Your task to perform on an android device: Go to wifi settings Image 0: 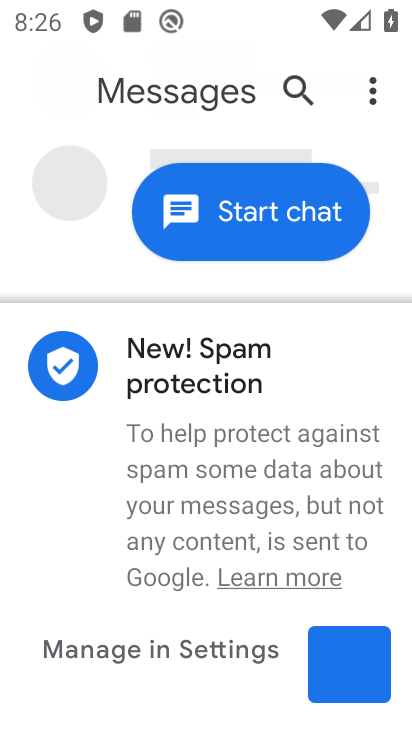
Step 0: press home button
Your task to perform on an android device: Go to wifi settings Image 1: 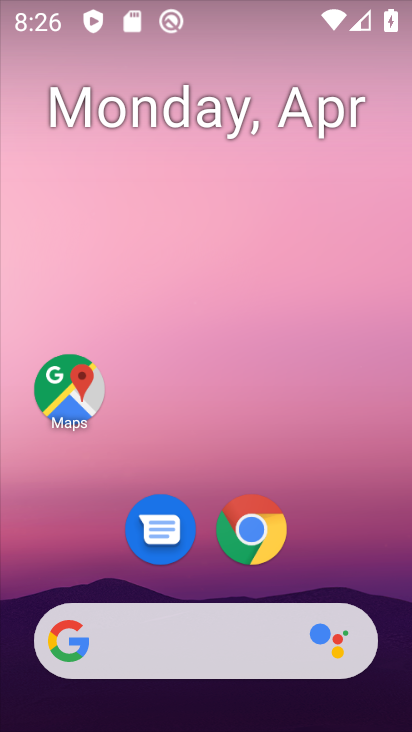
Step 1: drag from (329, 525) to (335, 140)
Your task to perform on an android device: Go to wifi settings Image 2: 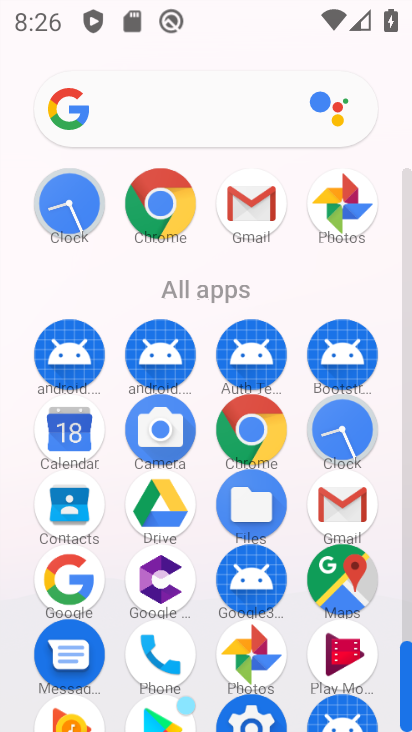
Step 2: drag from (296, 614) to (302, 303)
Your task to perform on an android device: Go to wifi settings Image 3: 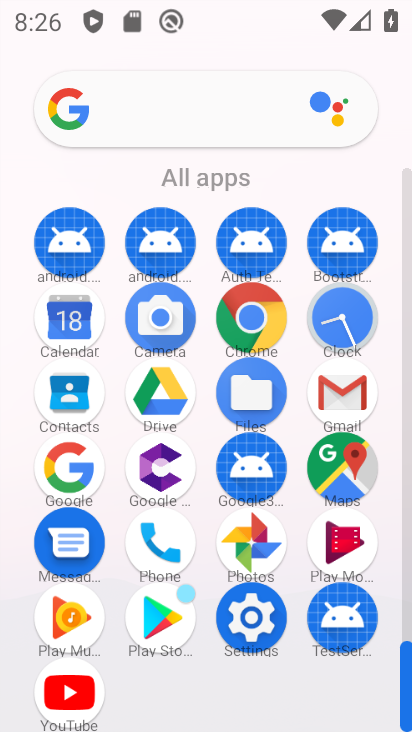
Step 3: click (233, 613)
Your task to perform on an android device: Go to wifi settings Image 4: 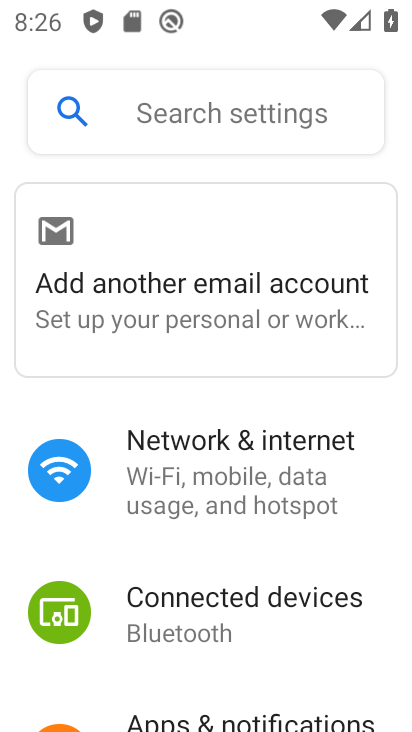
Step 4: drag from (312, 623) to (337, 258)
Your task to perform on an android device: Go to wifi settings Image 5: 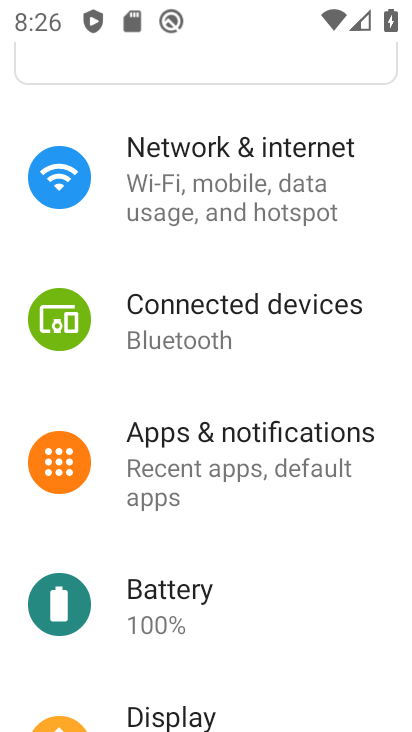
Step 5: click (224, 215)
Your task to perform on an android device: Go to wifi settings Image 6: 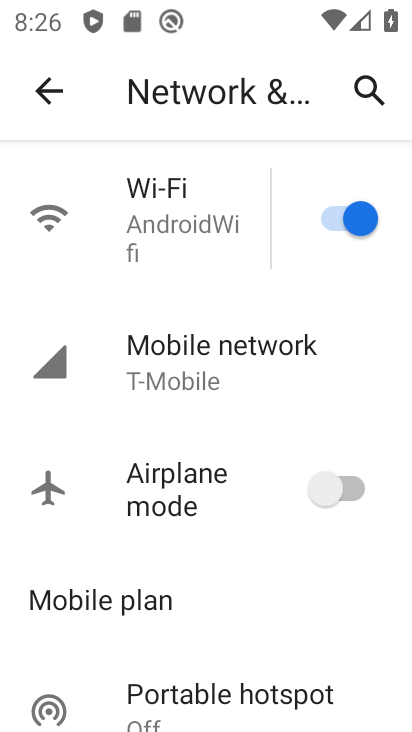
Step 6: click (198, 247)
Your task to perform on an android device: Go to wifi settings Image 7: 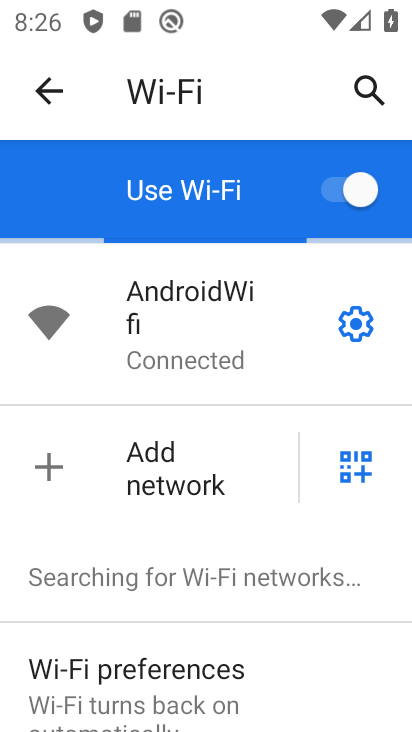
Step 7: click (345, 322)
Your task to perform on an android device: Go to wifi settings Image 8: 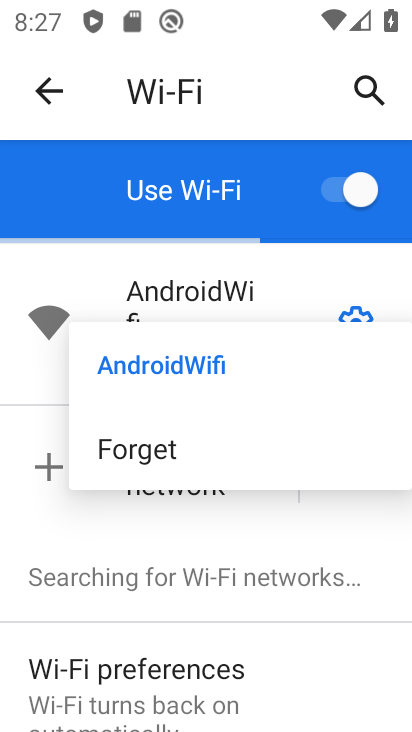
Step 8: click (346, 309)
Your task to perform on an android device: Go to wifi settings Image 9: 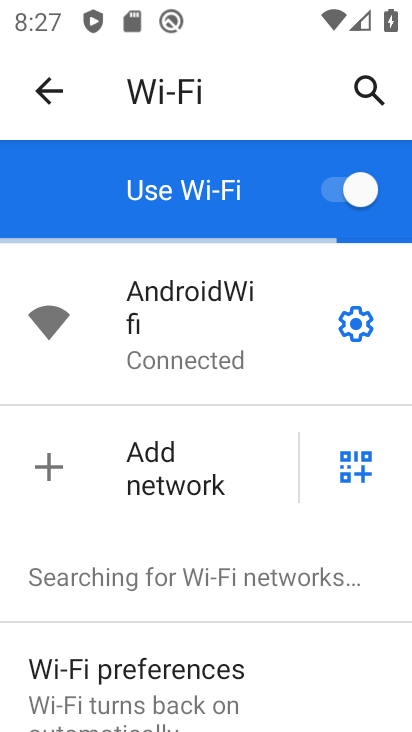
Step 9: click (357, 334)
Your task to perform on an android device: Go to wifi settings Image 10: 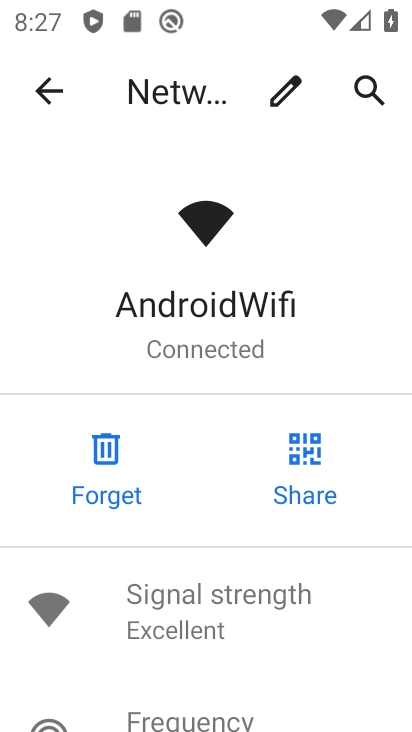
Step 10: task complete